Your task to perform on an android device: turn on bluetooth scan Image 0: 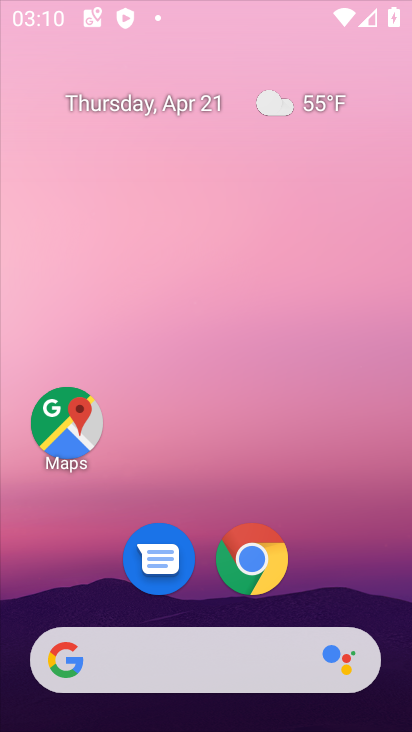
Step 0: click (179, 426)
Your task to perform on an android device: turn on bluetooth scan Image 1: 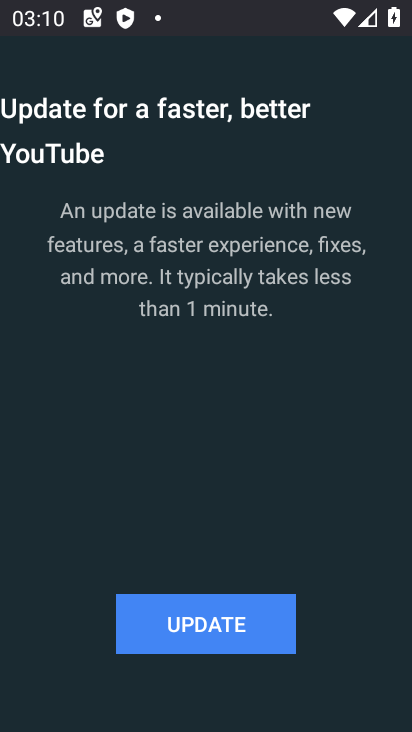
Step 1: press back button
Your task to perform on an android device: turn on bluetooth scan Image 2: 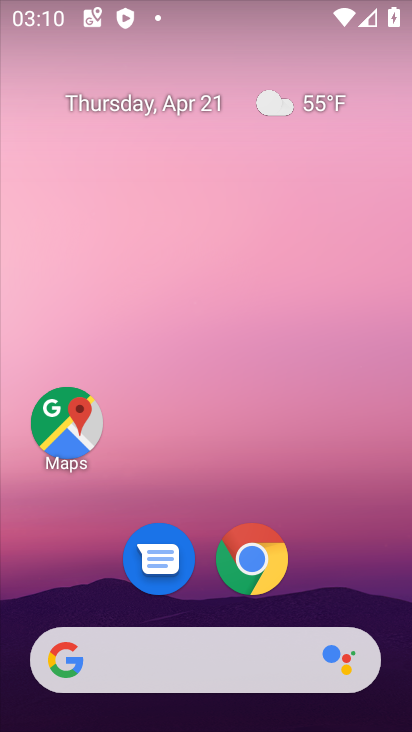
Step 2: drag from (312, 539) to (264, 43)
Your task to perform on an android device: turn on bluetooth scan Image 3: 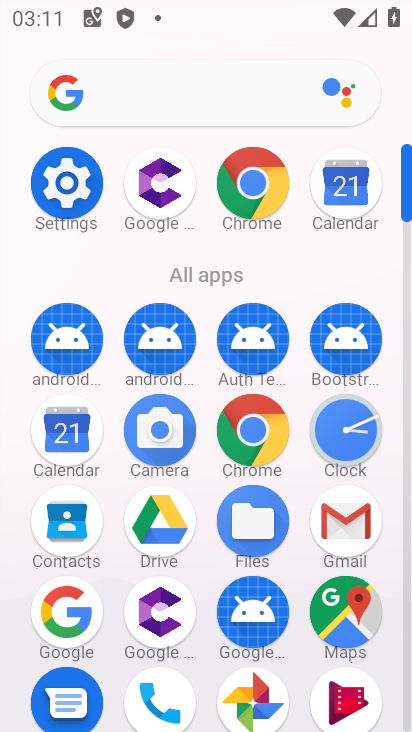
Step 3: click (63, 180)
Your task to perform on an android device: turn on bluetooth scan Image 4: 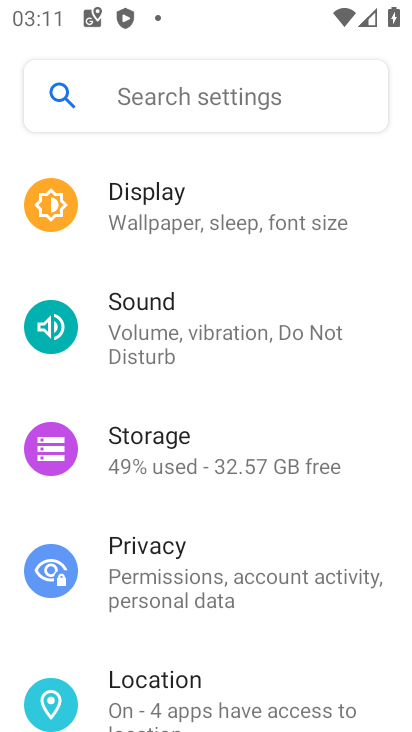
Step 4: drag from (258, 700) to (203, 220)
Your task to perform on an android device: turn on bluetooth scan Image 5: 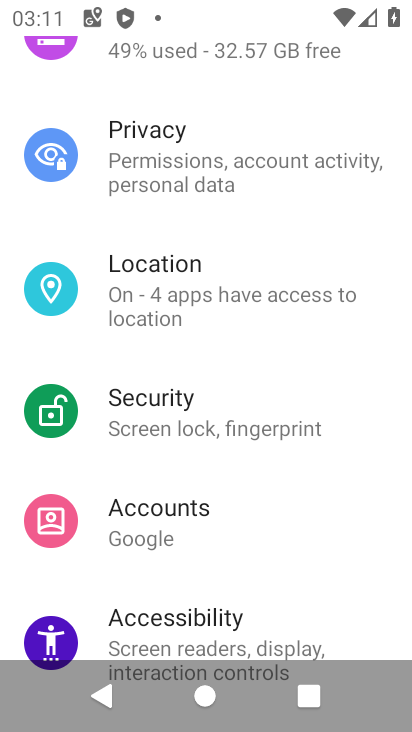
Step 5: drag from (233, 603) to (186, 216)
Your task to perform on an android device: turn on bluetooth scan Image 6: 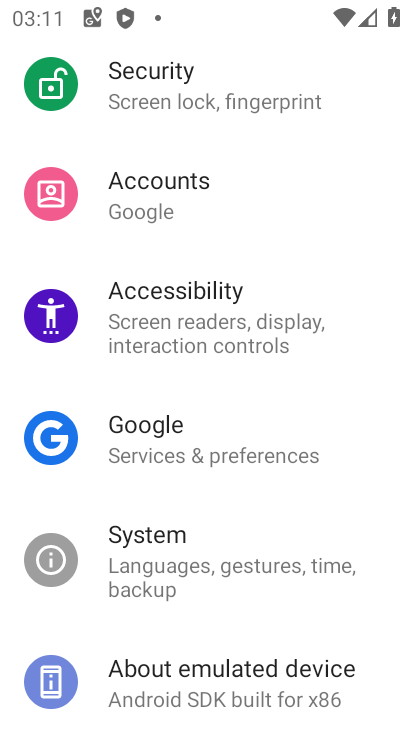
Step 6: drag from (187, 658) to (156, 303)
Your task to perform on an android device: turn on bluetooth scan Image 7: 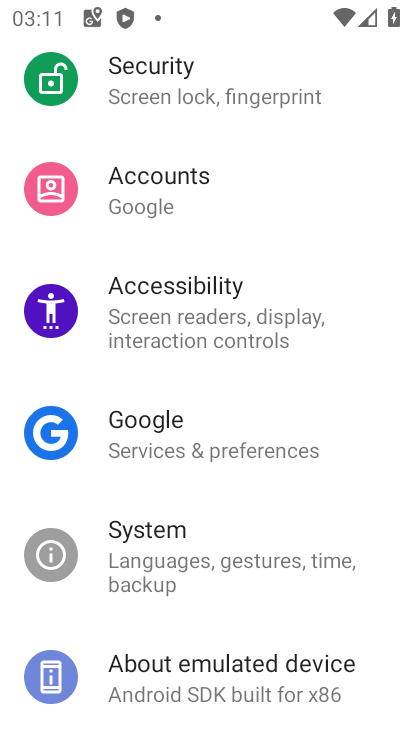
Step 7: drag from (166, 178) to (148, 544)
Your task to perform on an android device: turn on bluetooth scan Image 8: 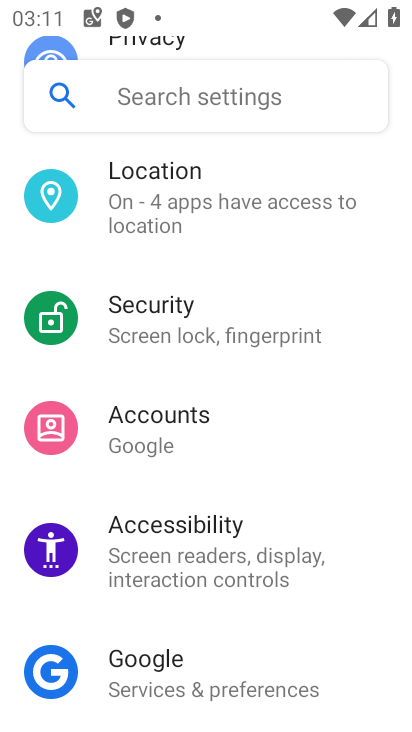
Step 8: click (143, 187)
Your task to perform on an android device: turn on bluetooth scan Image 9: 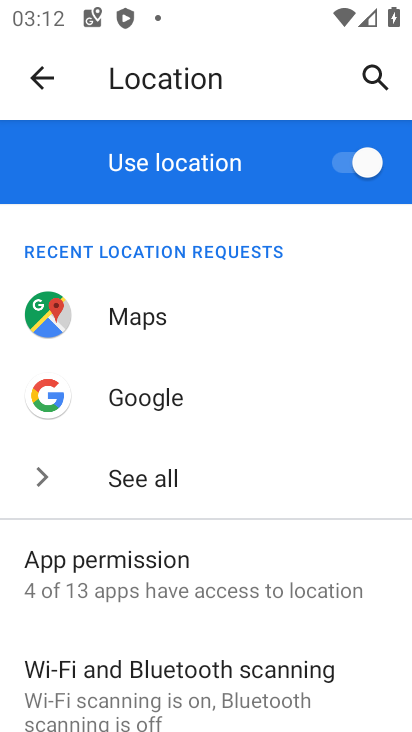
Step 9: click (167, 706)
Your task to perform on an android device: turn on bluetooth scan Image 10: 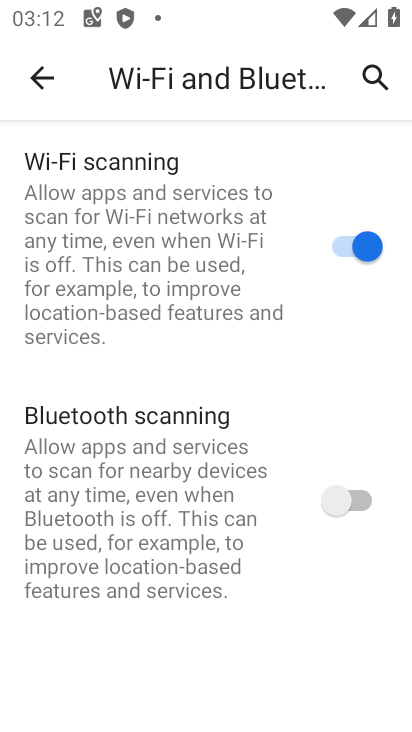
Step 10: click (337, 487)
Your task to perform on an android device: turn on bluetooth scan Image 11: 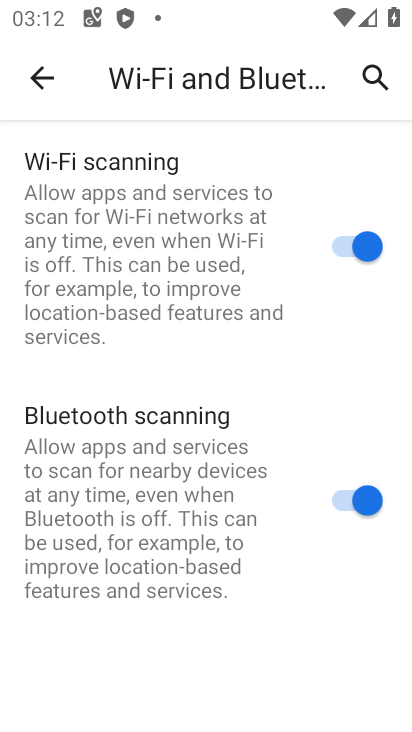
Step 11: task complete